Your task to perform on an android device: Go to Yahoo.com Image 0: 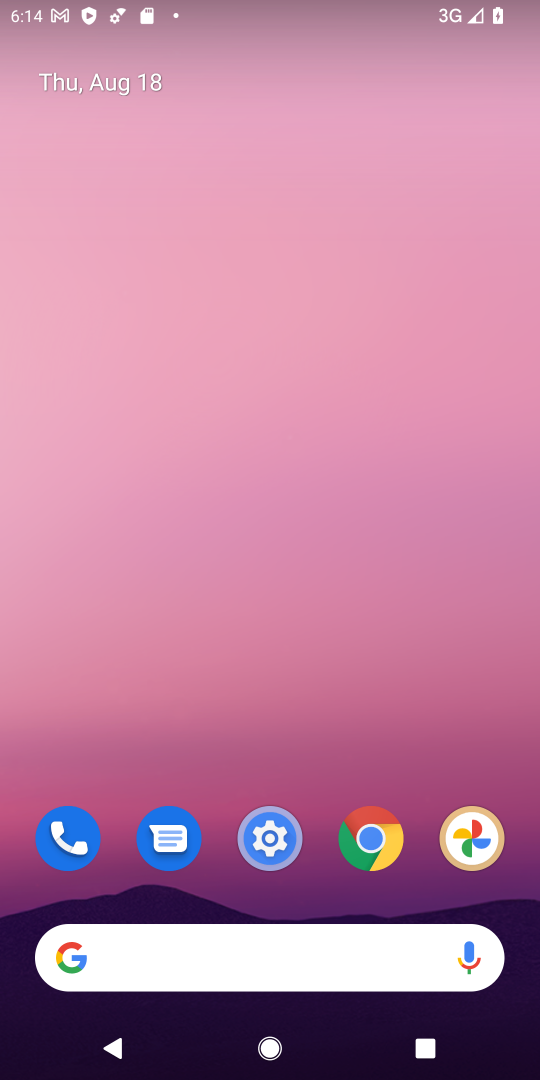
Step 0: press home button
Your task to perform on an android device: Go to Yahoo.com Image 1: 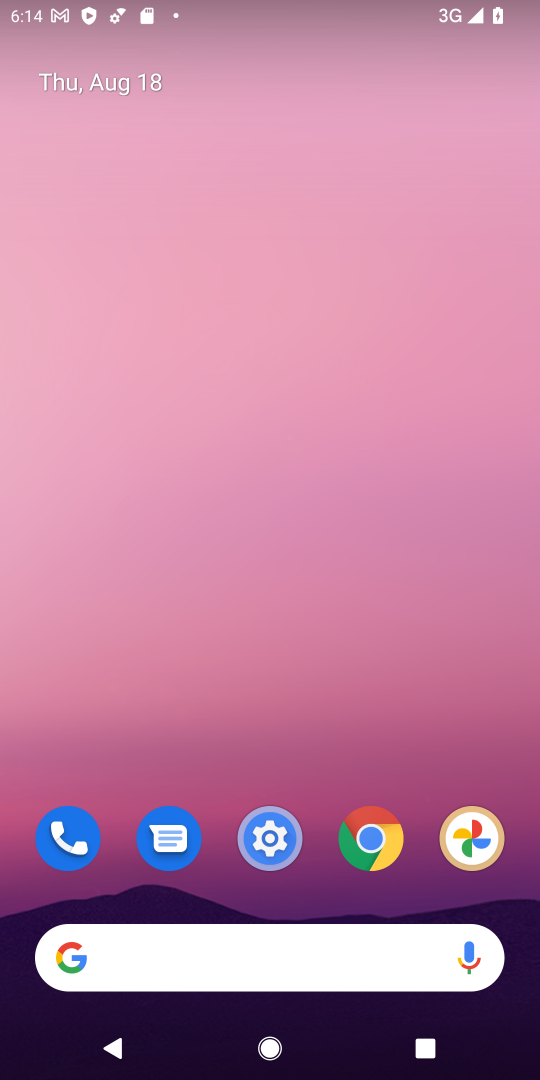
Step 1: click (77, 966)
Your task to perform on an android device: Go to Yahoo.com Image 2: 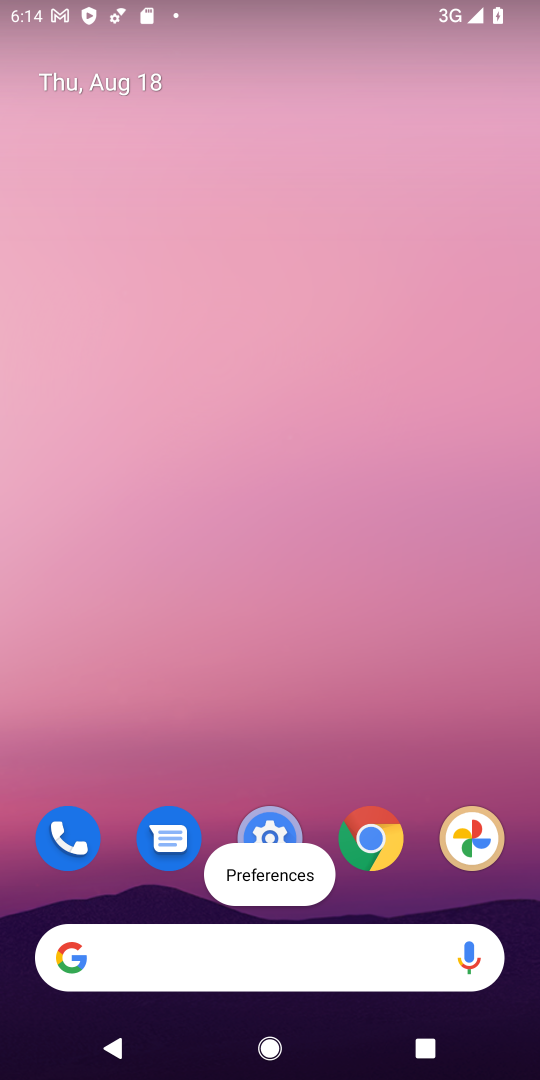
Step 2: click (61, 964)
Your task to perform on an android device: Go to Yahoo.com Image 3: 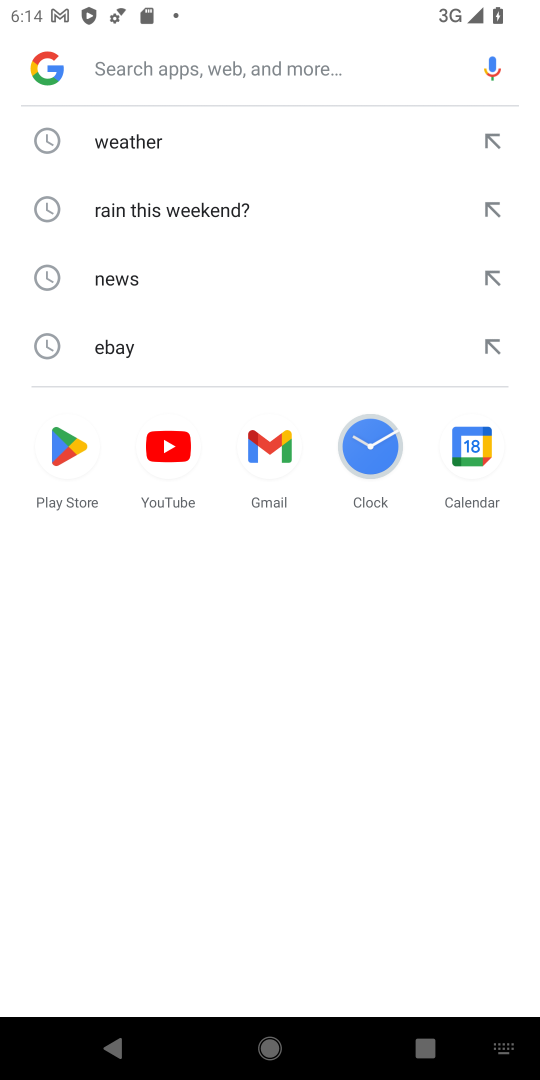
Step 3: type "Yahoo.com"
Your task to perform on an android device: Go to Yahoo.com Image 4: 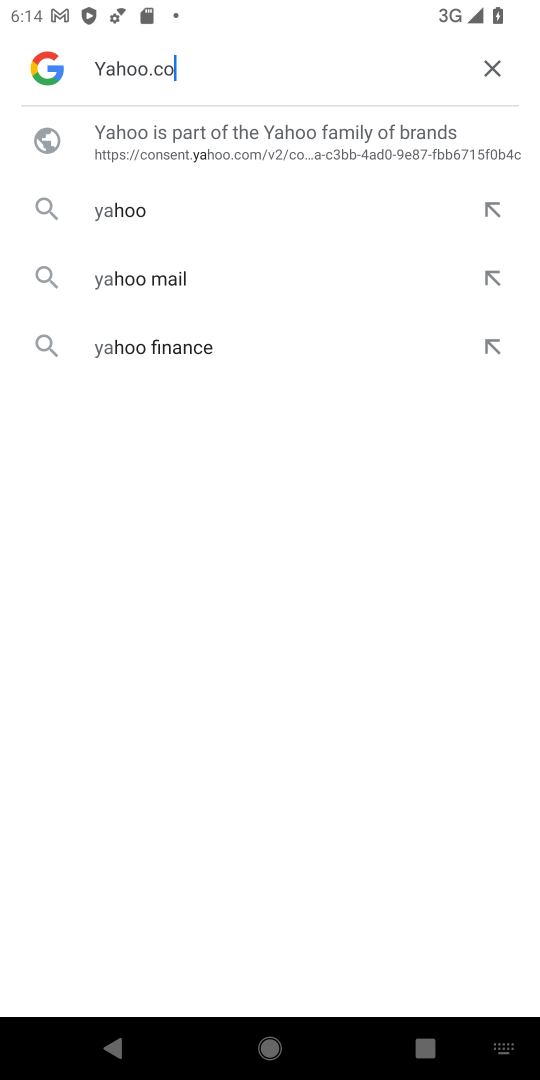
Step 4: press enter
Your task to perform on an android device: Go to Yahoo.com Image 5: 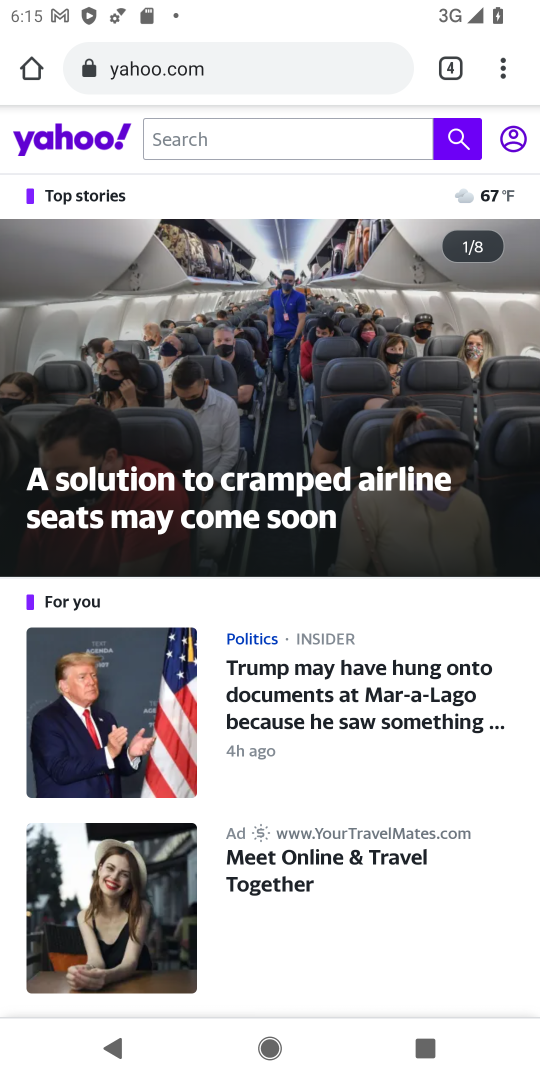
Step 5: task complete